Your task to perform on an android device: turn notification dots off Image 0: 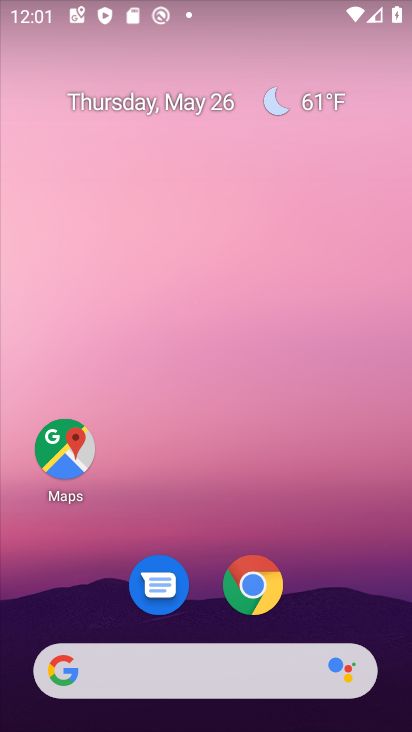
Step 0: drag from (228, 471) to (211, 36)
Your task to perform on an android device: turn notification dots off Image 1: 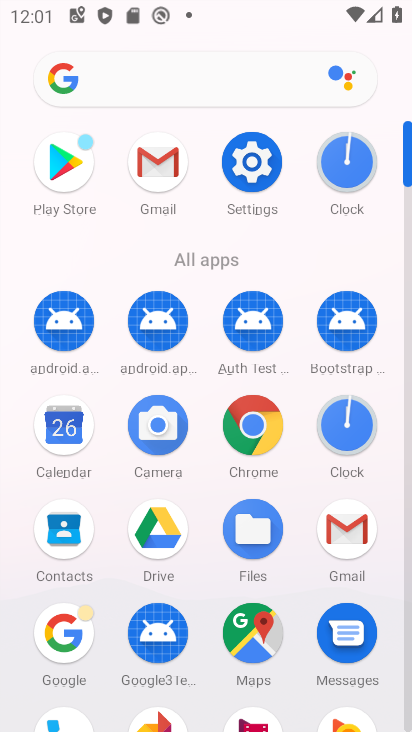
Step 1: click (245, 158)
Your task to perform on an android device: turn notification dots off Image 2: 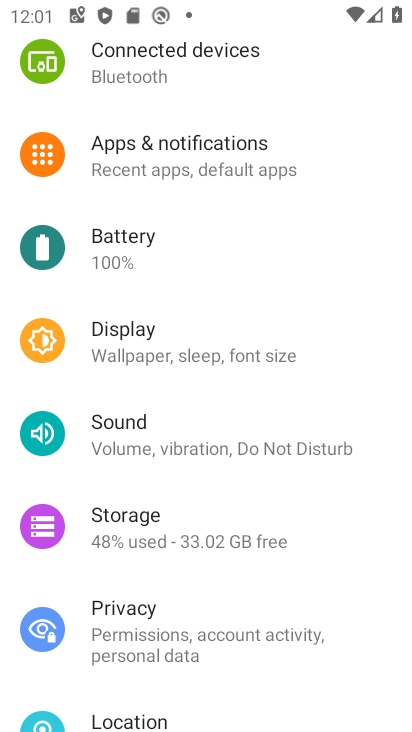
Step 2: click (245, 157)
Your task to perform on an android device: turn notification dots off Image 3: 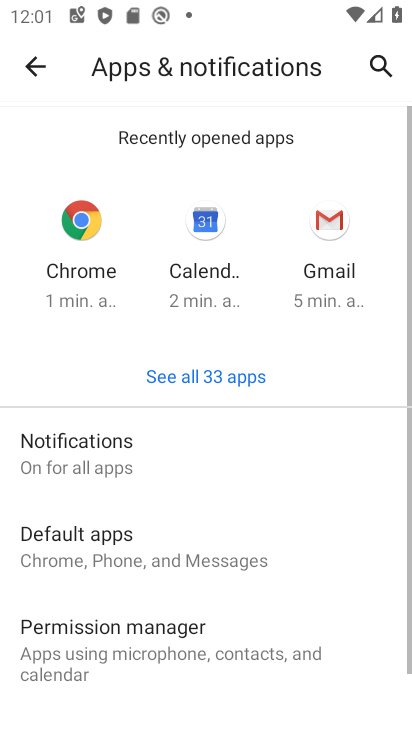
Step 3: click (198, 462)
Your task to perform on an android device: turn notification dots off Image 4: 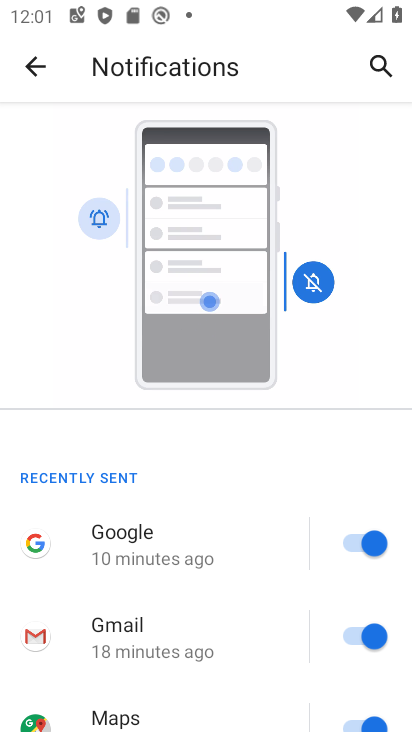
Step 4: drag from (201, 582) to (237, 160)
Your task to perform on an android device: turn notification dots off Image 5: 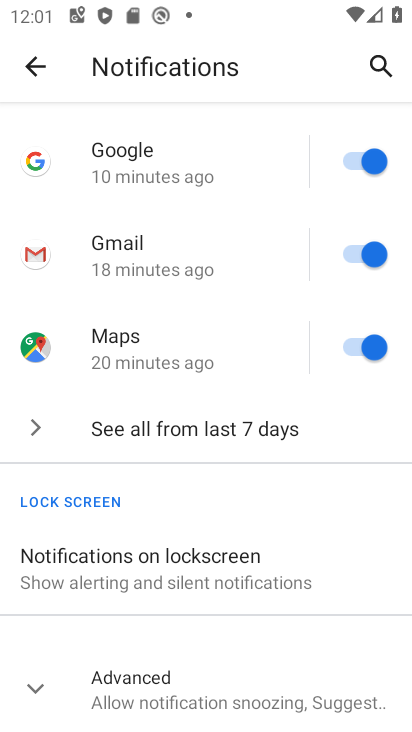
Step 5: click (32, 677)
Your task to perform on an android device: turn notification dots off Image 6: 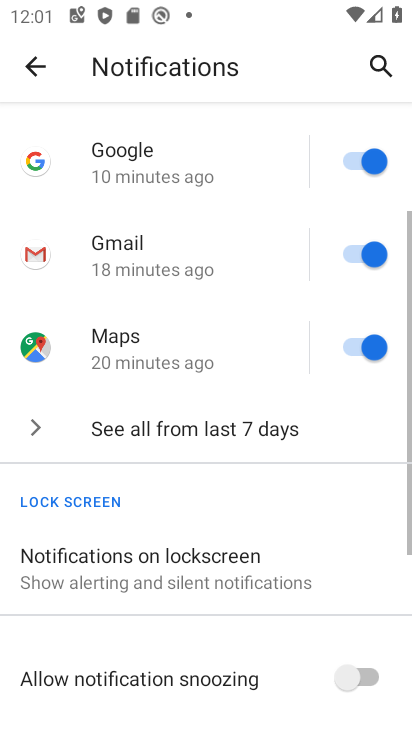
Step 6: drag from (195, 610) to (237, 189)
Your task to perform on an android device: turn notification dots off Image 7: 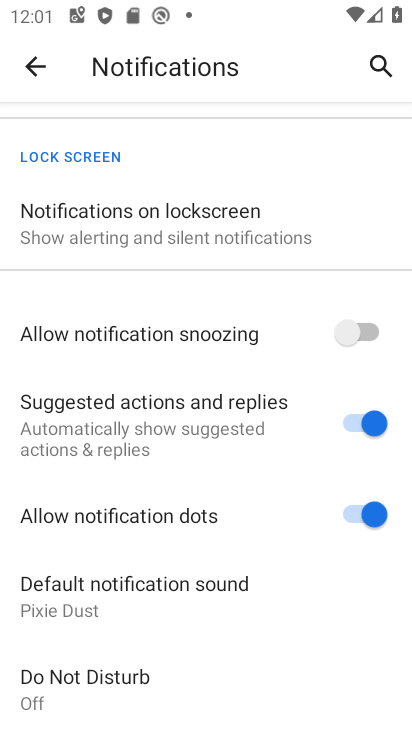
Step 7: click (367, 511)
Your task to perform on an android device: turn notification dots off Image 8: 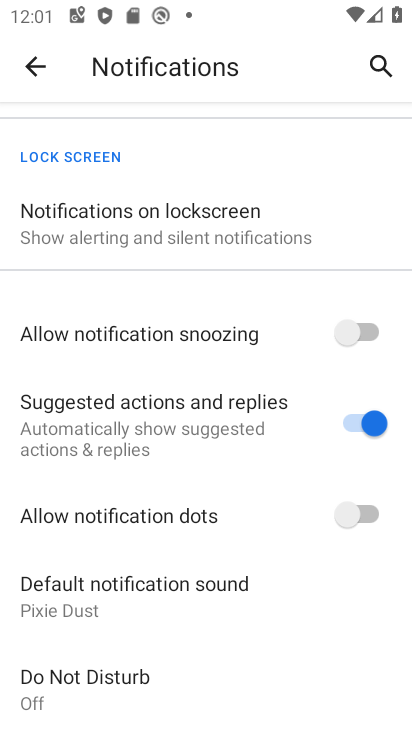
Step 8: task complete